Your task to perform on an android device: turn on translation in the chrome app Image 0: 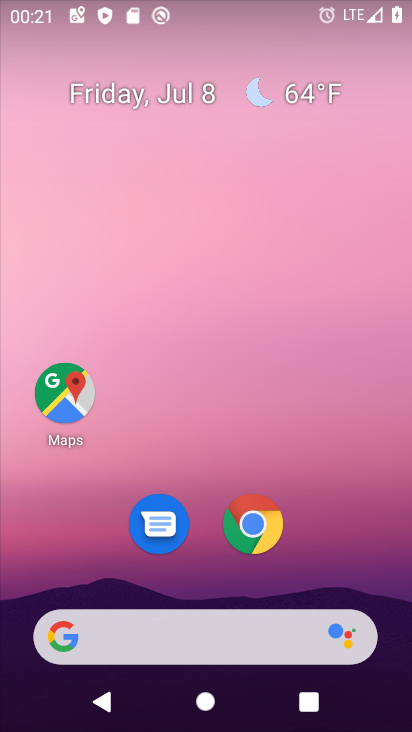
Step 0: drag from (241, 476) to (247, 30)
Your task to perform on an android device: turn on translation in the chrome app Image 1: 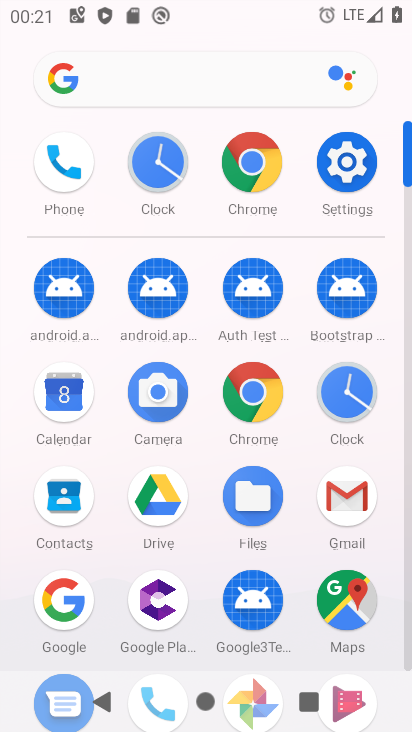
Step 1: click (252, 169)
Your task to perform on an android device: turn on translation in the chrome app Image 2: 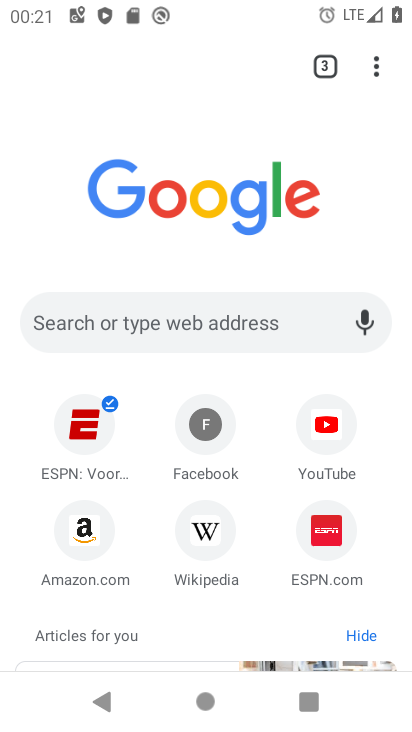
Step 2: click (376, 66)
Your task to perform on an android device: turn on translation in the chrome app Image 3: 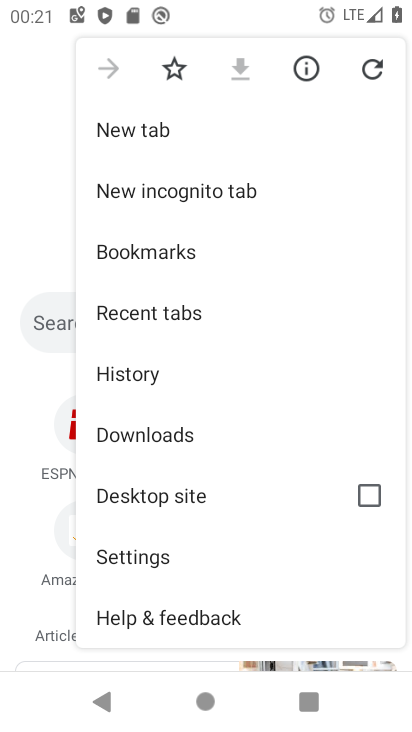
Step 3: click (200, 563)
Your task to perform on an android device: turn on translation in the chrome app Image 4: 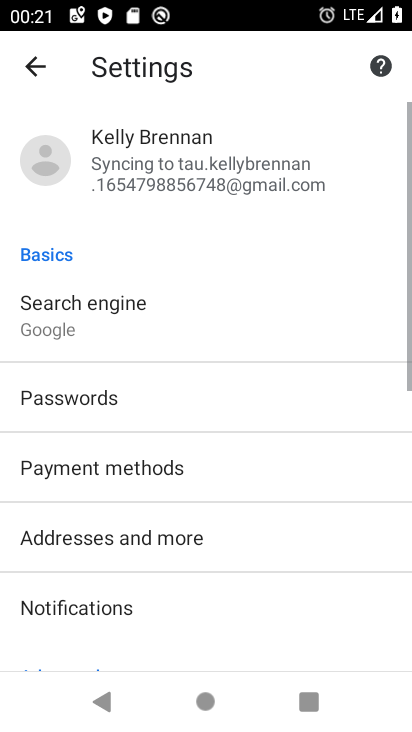
Step 4: drag from (250, 533) to (291, 272)
Your task to perform on an android device: turn on translation in the chrome app Image 5: 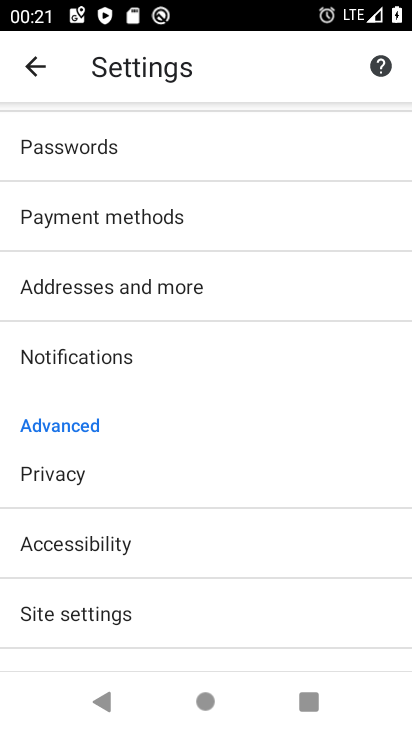
Step 5: drag from (193, 538) to (214, 323)
Your task to perform on an android device: turn on translation in the chrome app Image 6: 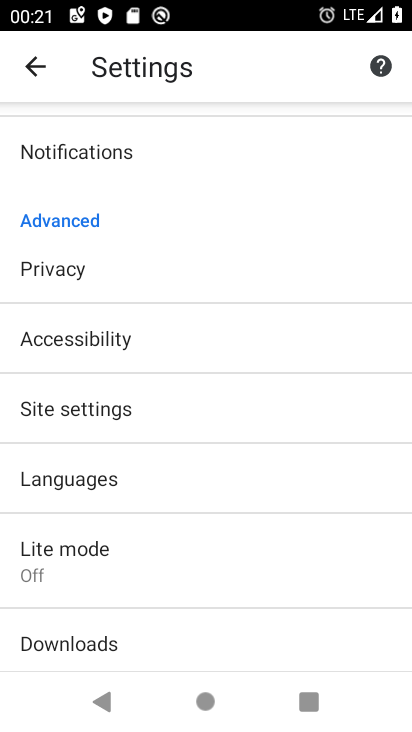
Step 6: click (177, 469)
Your task to perform on an android device: turn on translation in the chrome app Image 7: 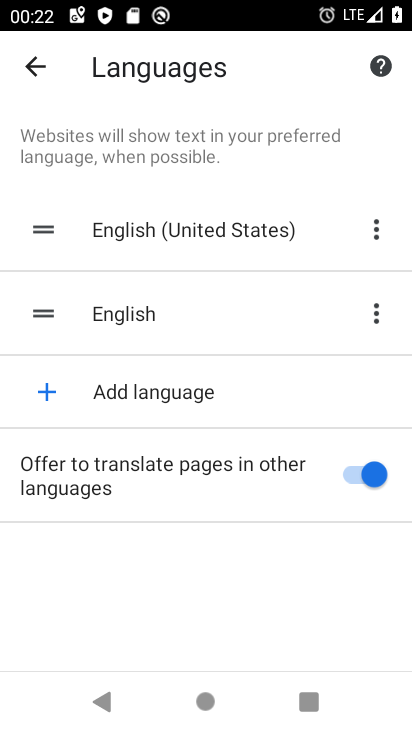
Step 7: task complete